Your task to perform on an android device: open sync settings in chrome Image 0: 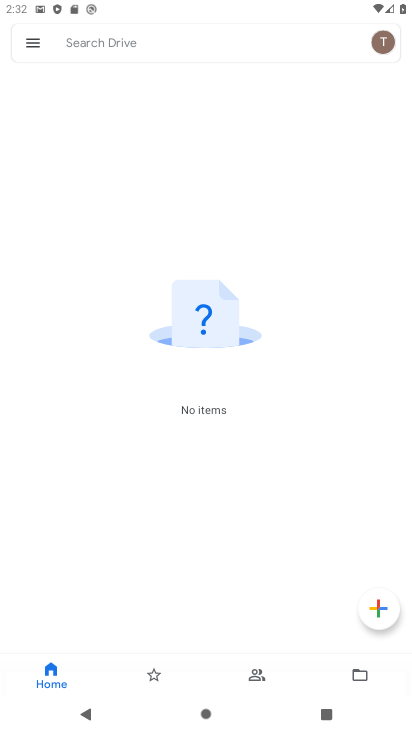
Step 0: press home button
Your task to perform on an android device: open sync settings in chrome Image 1: 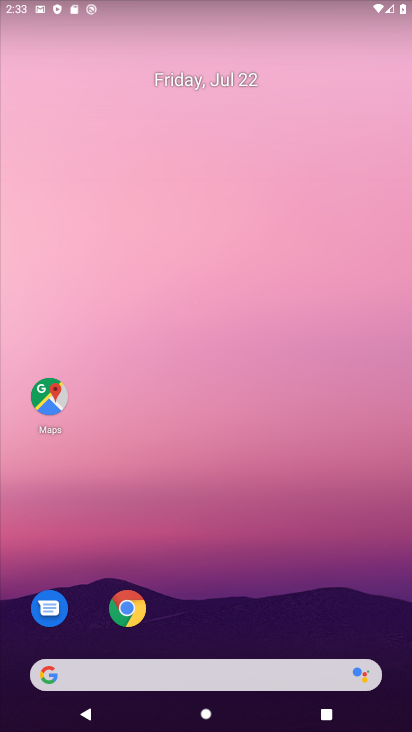
Step 1: drag from (211, 624) to (201, 183)
Your task to perform on an android device: open sync settings in chrome Image 2: 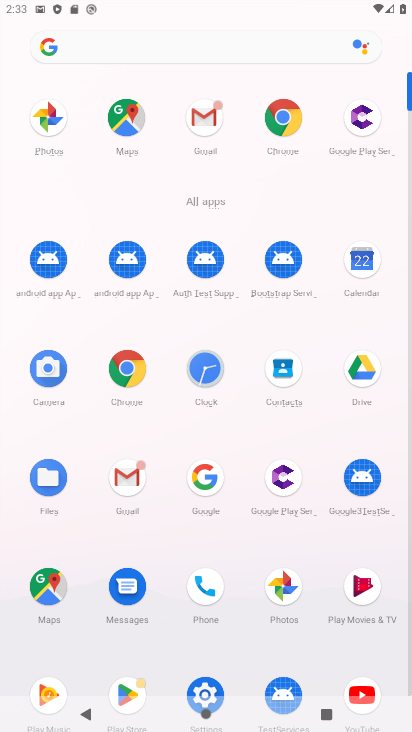
Step 2: click (295, 113)
Your task to perform on an android device: open sync settings in chrome Image 3: 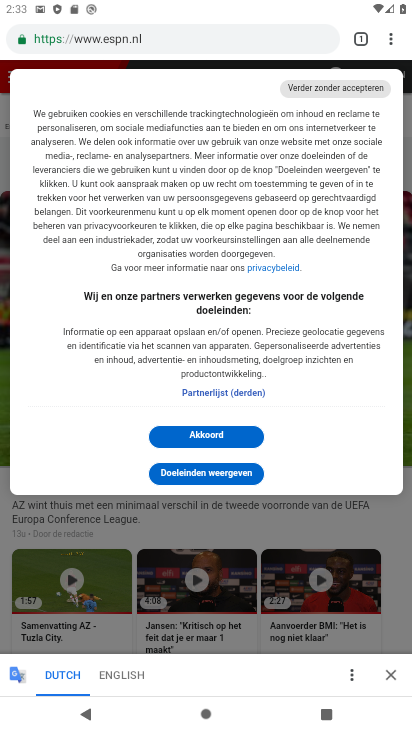
Step 3: click (391, 39)
Your task to perform on an android device: open sync settings in chrome Image 4: 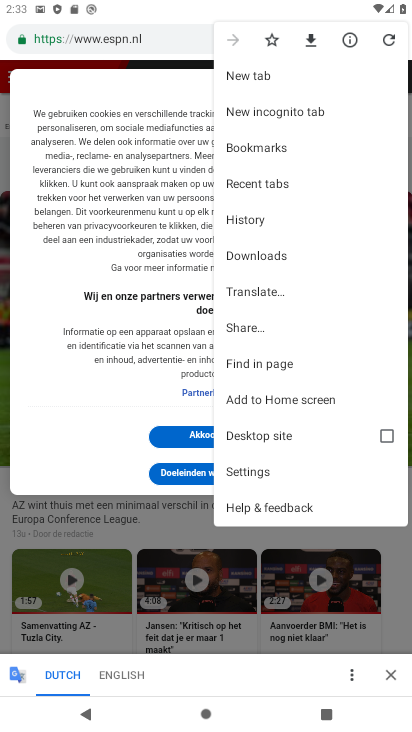
Step 4: click (270, 472)
Your task to perform on an android device: open sync settings in chrome Image 5: 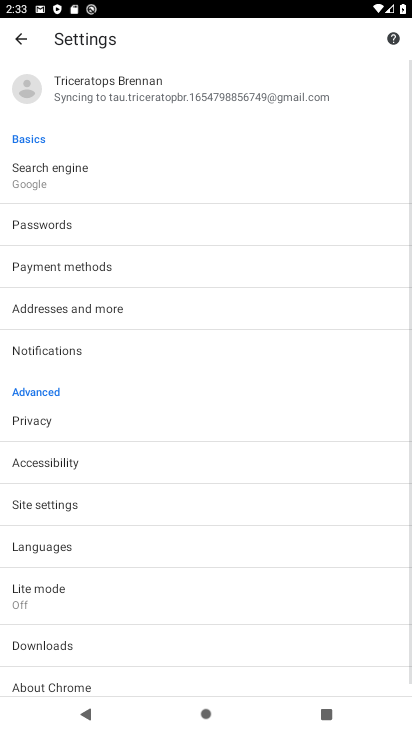
Step 5: click (165, 81)
Your task to perform on an android device: open sync settings in chrome Image 6: 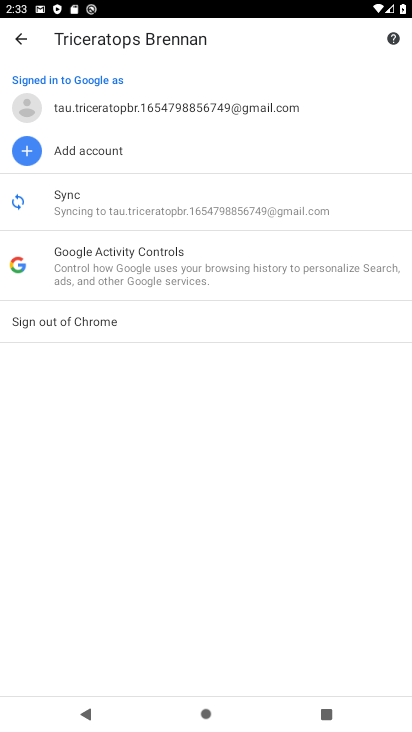
Step 6: click (174, 220)
Your task to perform on an android device: open sync settings in chrome Image 7: 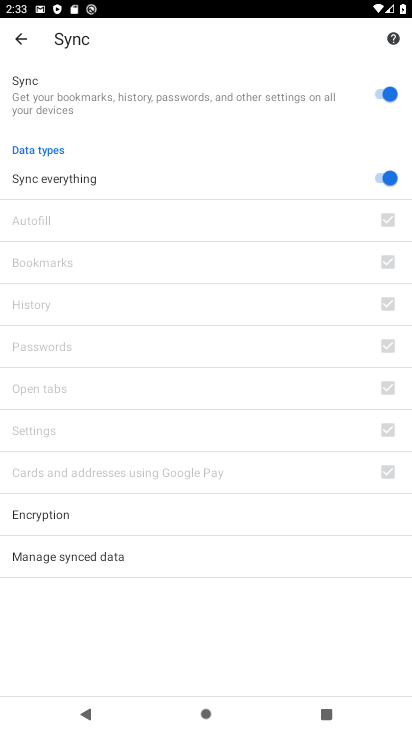
Step 7: task complete